Your task to perform on an android device: remove spam from my inbox in the gmail app Image 0: 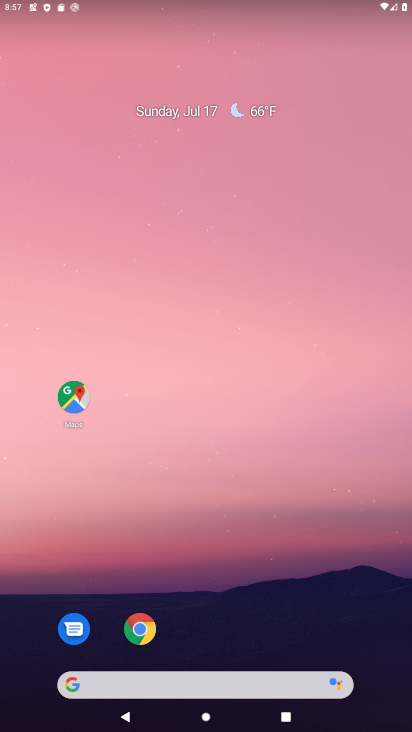
Step 0: press home button
Your task to perform on an android device: remove spam from my inbox in the gmail app Image 1: 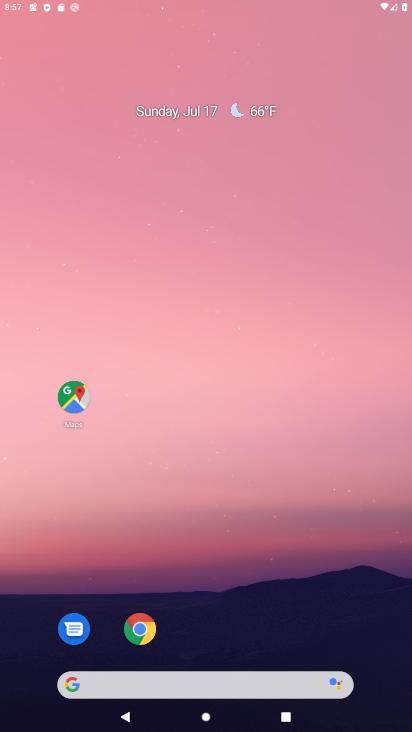
Step 1: drag from (208, 652) to (322, 6)
Your task to perform on an android device: remove spam from my inbox in the gmail app Image 2: 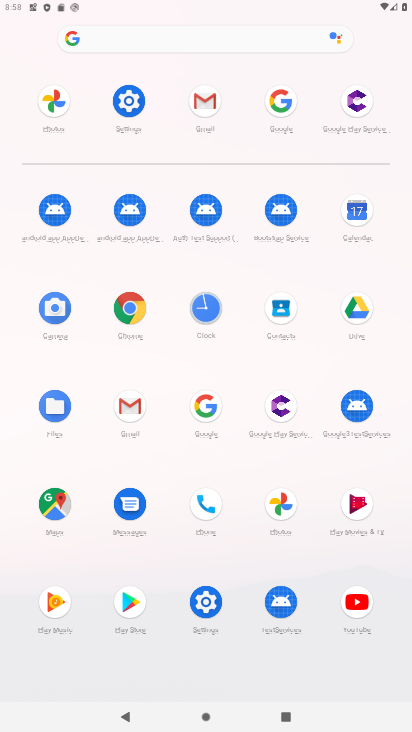
Step 2: click (202, 97)
Your task to perform on an android device: remove spam from my inbox in the gmail app Image 3: 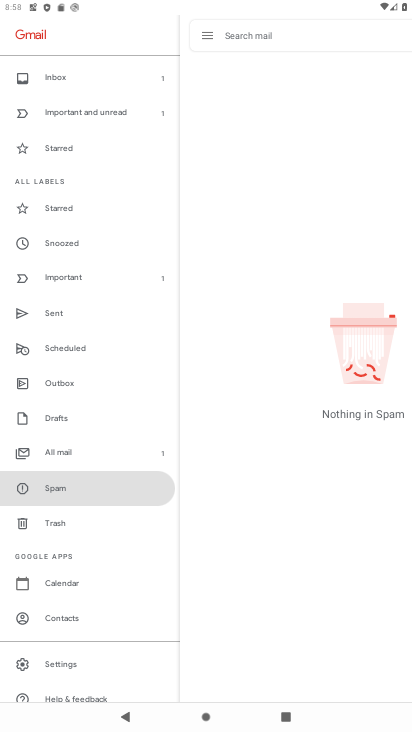
Step 3: click (54, 490)
Your task to perform on an android device: remove spam from my inbox in the gmail app Image 4: 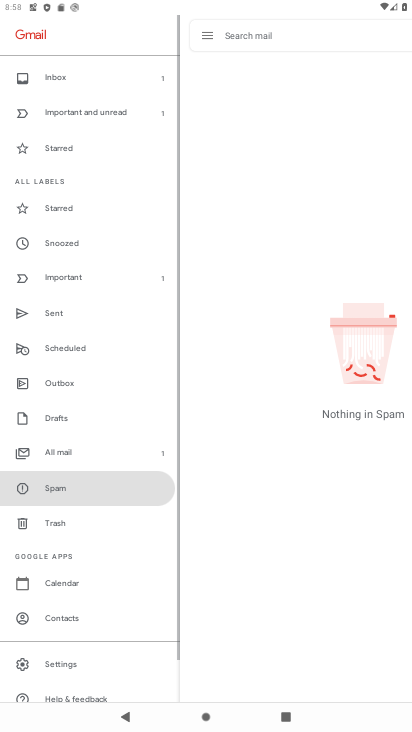
Step 4: task complete